Your task to perform on an android device: turn notification dots off Image 0: 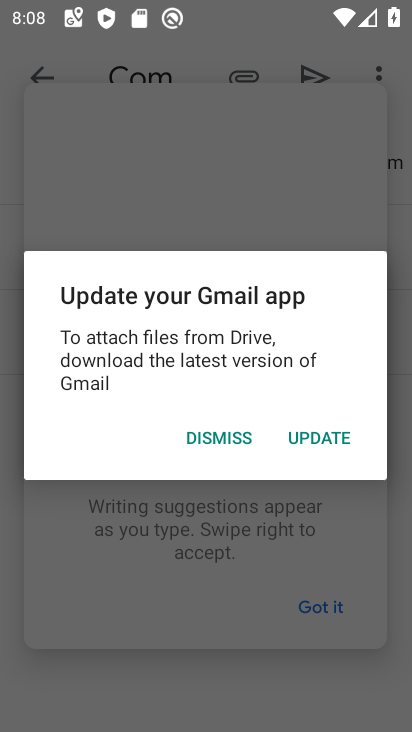
Step 0: press home button
Your task to perform on an android device: turn notification dots off Image 1: 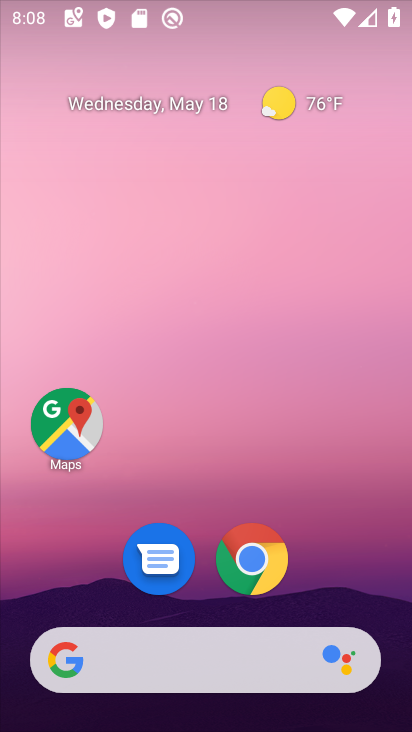
Step 1: drag from (364, 587) to (359, 72)
Your task to perform on an android device: turn notification dots off Image 2: 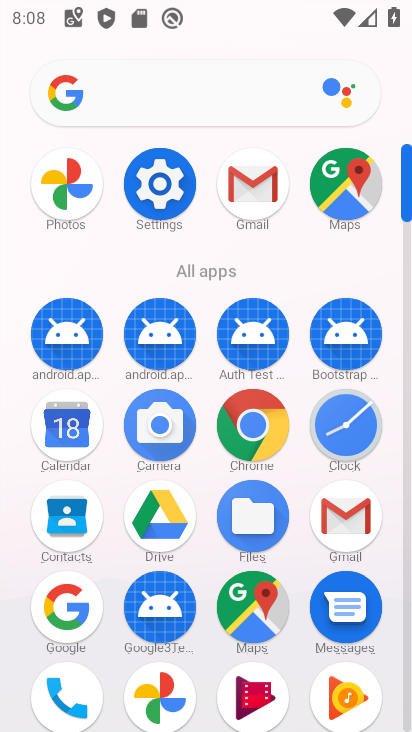
Step 2: click (160, 182)
Your task to perform on an android device: turn notification dots off Image 3: 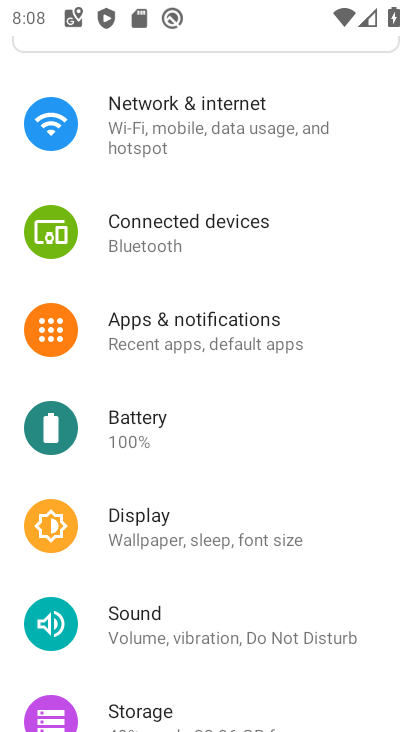
Step 3: click (202, 342)
Your task to perform on an android device: turn notification dots off Image 4: 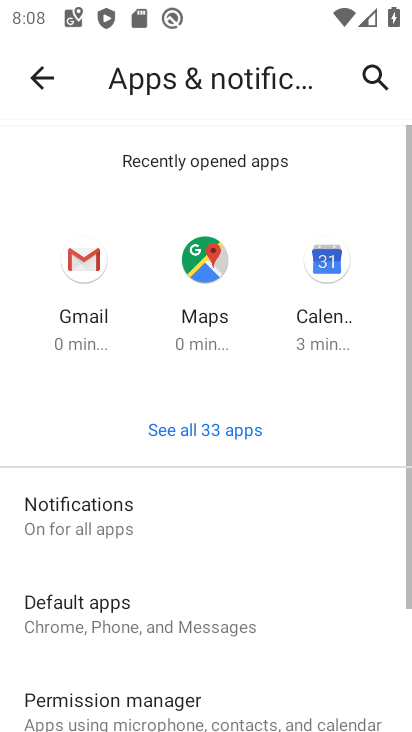
Step 4: click (141, 524)
Your task to perform on an android device: turn notification dots off Image 5: 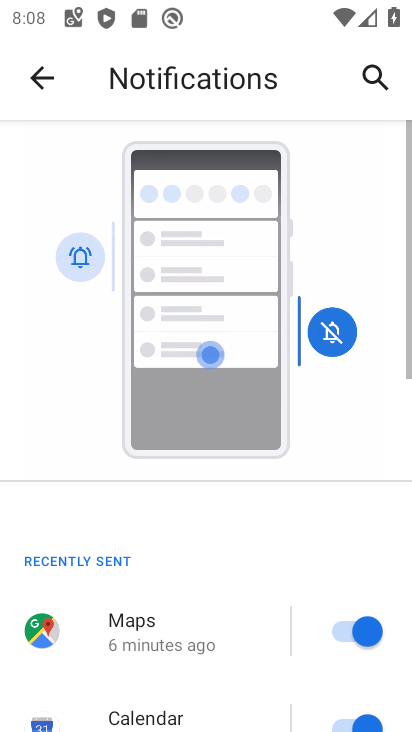
Step 5: drag from (287, 611) to (343, 6)
Your task to perform on an android device: turn notification dots off Image 6: 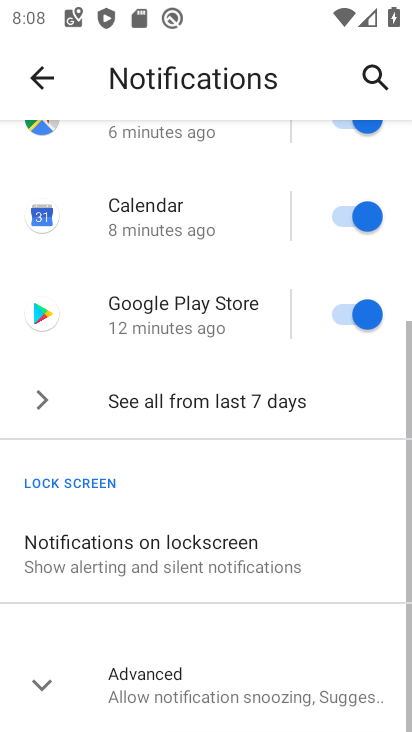
Step 6: drag from (238, 602) to (224, 392)
Your task to perform on an android device: turn notification dots off Image 7: 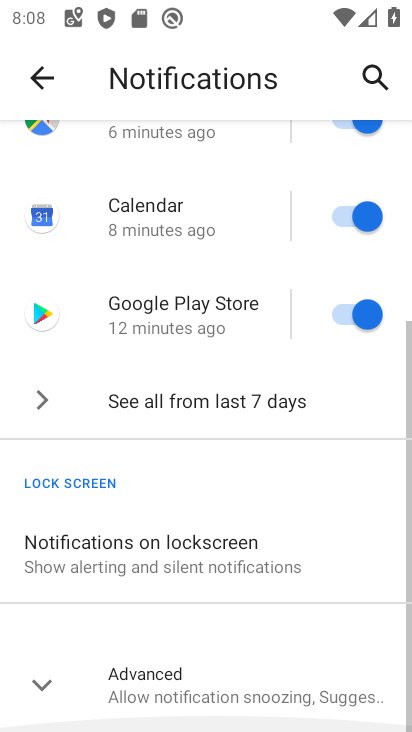
Step 7: click (152, 686)
Your task to perform on an android device: turn notification dots off Image 8: 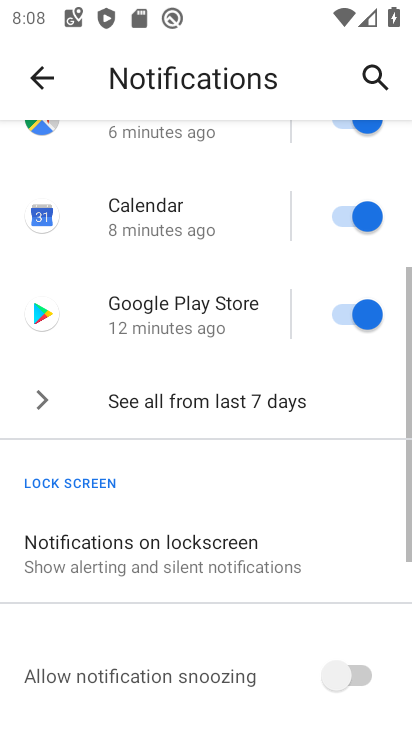
Step 8: drag from (263, 638) to (267, 113)
Your task to perform on an android device: turn notification dots off Image 9: 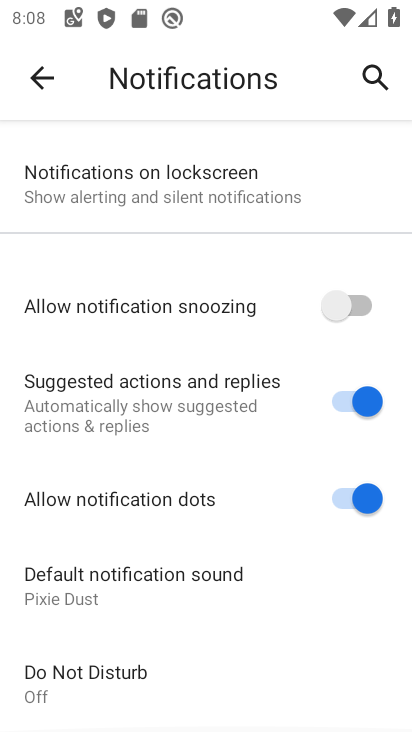
Step 9: click (354, 502)
Your task to perform on an android device: turn notification dots off Image 10: 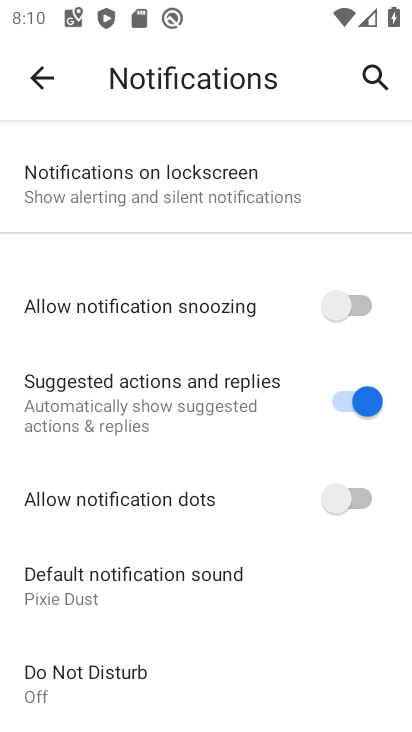
Step 10: task complete